Your task to perform on an android device: toggle location history Image 0: 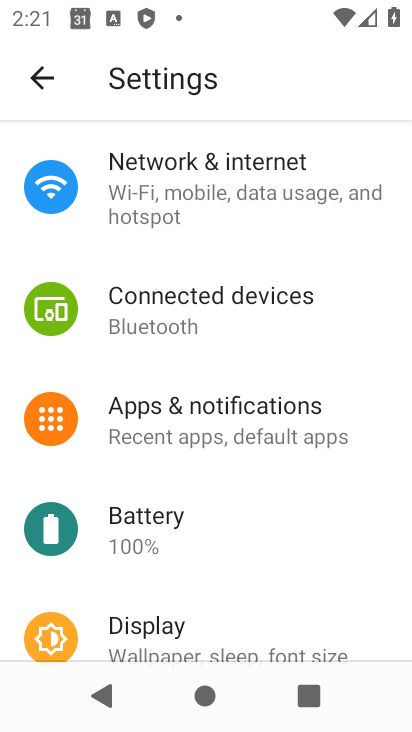
Step 0: drag from (276, 597) to (254, 227)
Your task to perform on an android device: toggle location history Image 1: 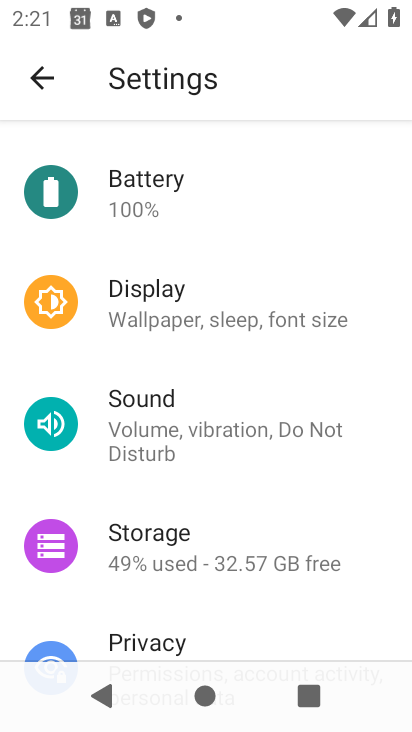
Step 1: drag from (265, 208) to (312, 542)
Your task to perform on an android device: toggle location history Image 2: 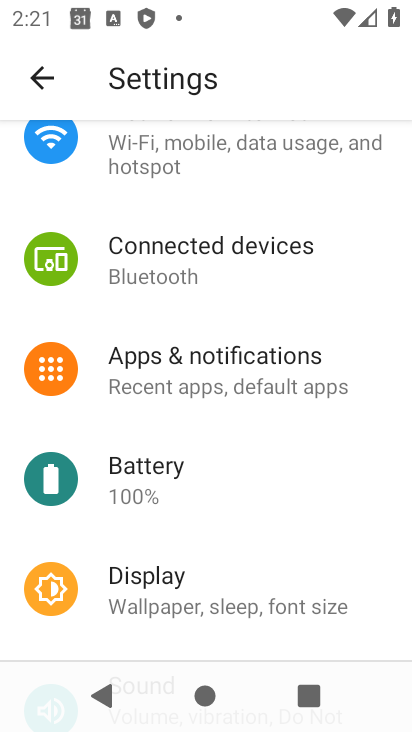
Step 2: drag from (276, 209) to (300, 559)
Your task to perform on an android device: toggle location history Image 3: 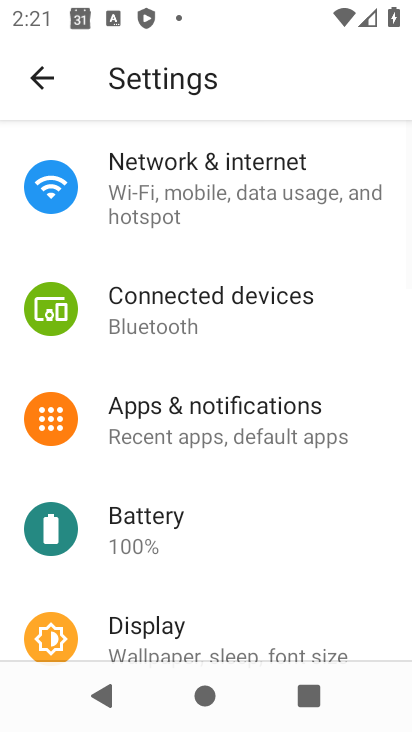
Step 3: drag from (311, 554) to (282, 70)
Your task to perform on an android device: toggle location history Image 4: 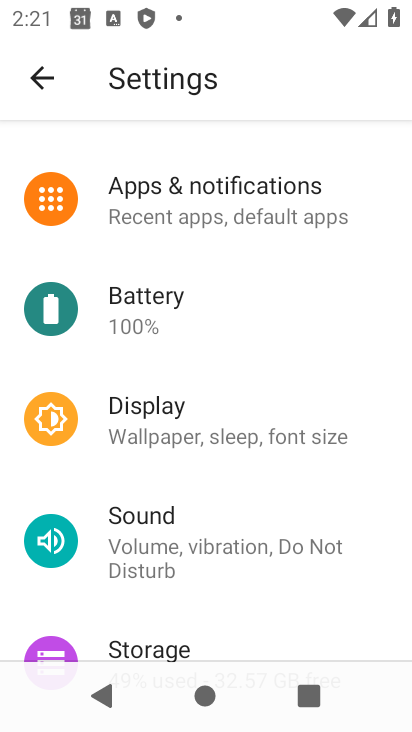
Step 4: drag from (225, 584) to (236, 133)
Your task to perform on an android device: toggle location history Image 5: 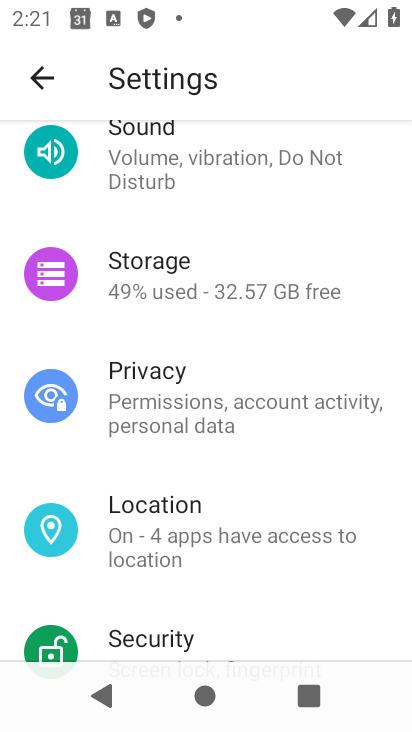
Step 5: click (215, 529)
Your task to perform on an android device: toggle location history Image 6: 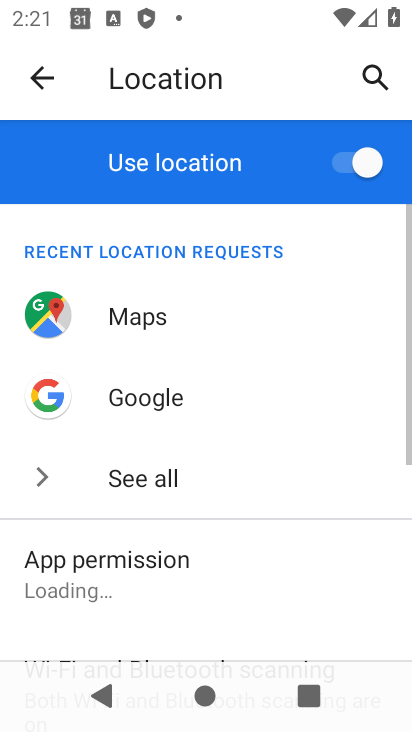
Step 6: drag from (212, 596) to (243, 136)
Your task to perform on an android device: toggle location history Image 7: 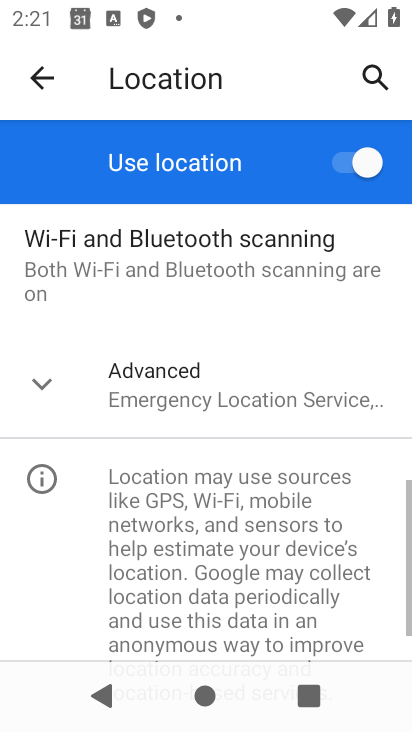
Step 7: click (48, 376)
Your task to perform on an android device: toggle location history Image 8: 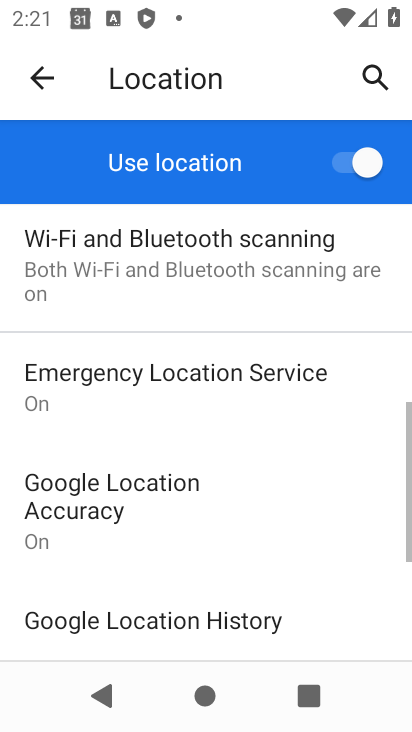
Step 8: drag from (207, 571) to (252, 219)
Your task to perform on an android device: toggle location history Image 9: 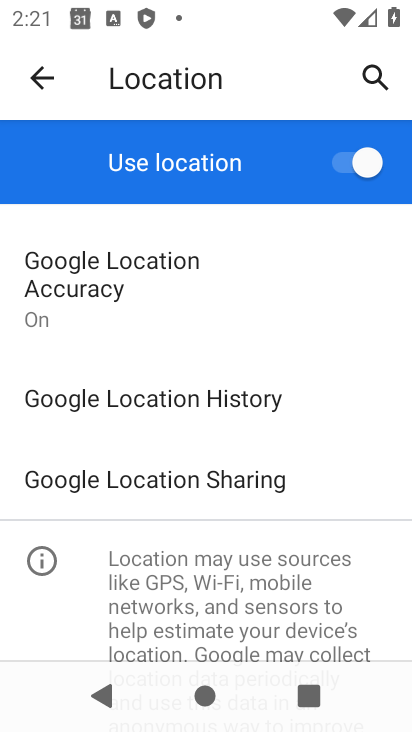
Step 9: click (265, 392)
Your task to perform on an android device: toggle location history Image 10: 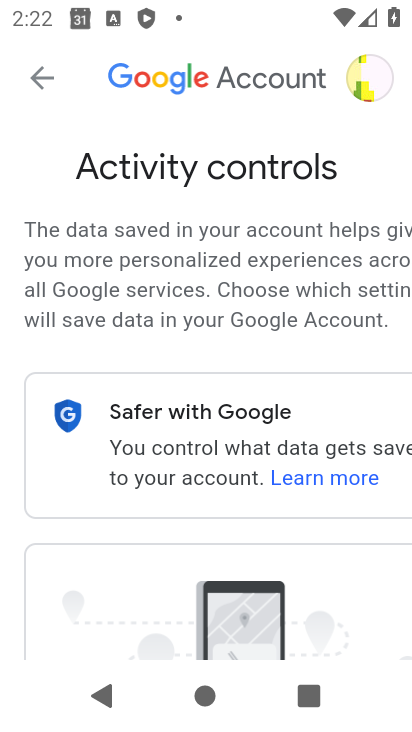
Step 10: drag from (268, 496) to (262, 77)
Your task to perform on an android device: toggle location history Image 11: 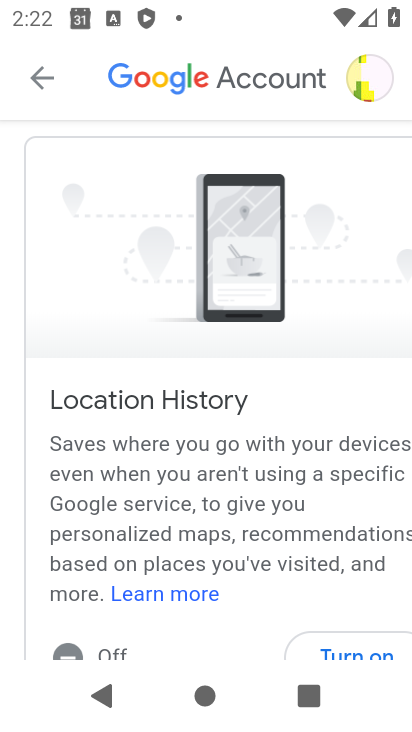
Step 11: drag from (248, 511) to (203, 134)
Your task to perform on an android device: toggle location history Image 12: 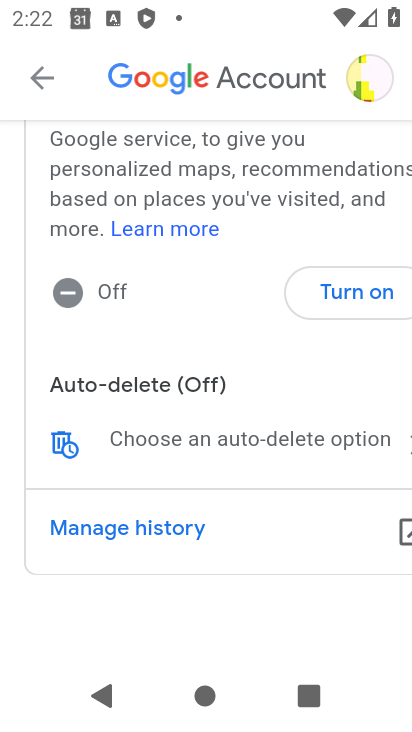
Step 12: click (330, 282)
Your task to perform on an android device: toggle location history Image 13: 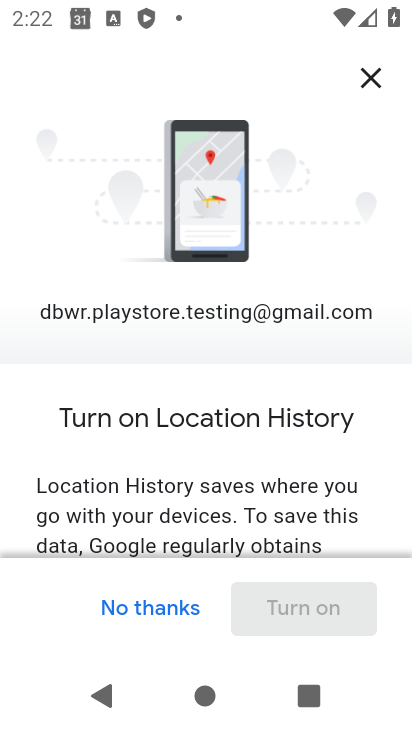
Step 13: click (190, 610)
Your task to perform on an android device: toggle location history Image 14: 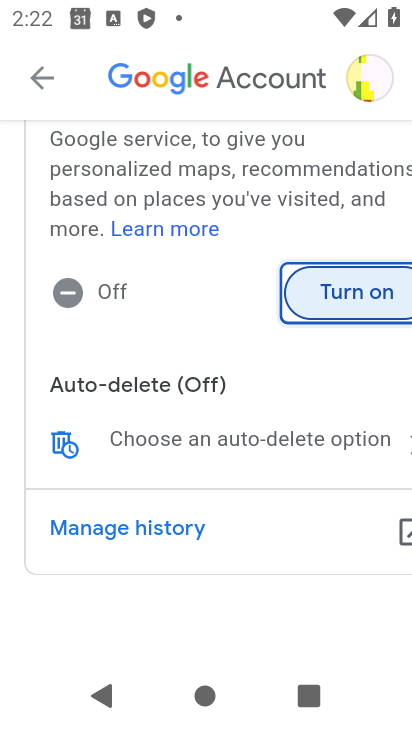
Step 14: click (362, 287)
Your task to perform on an android device: toggle location history Image 15: 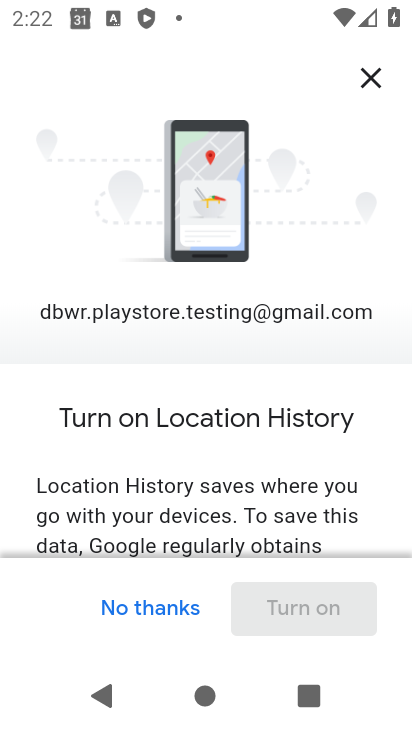
Step 15: drag from (318, 457) to (275, 89)
Your task to perform on an android device: toggle location history Image 16: 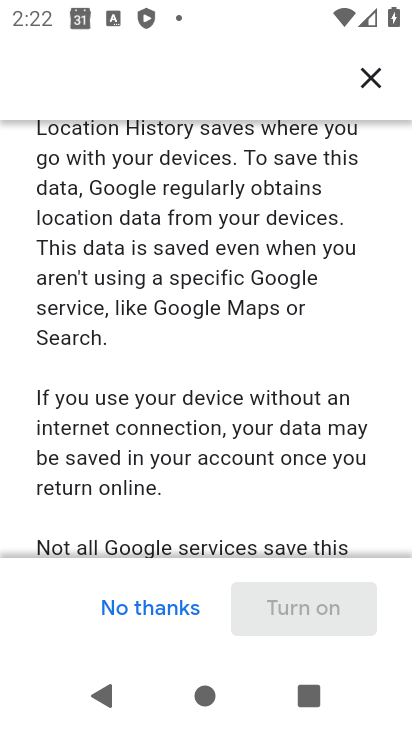
Step 16: drag from (276, 460) to (261, 156)
Your task to perform on an android device: toggle location history Image 17: 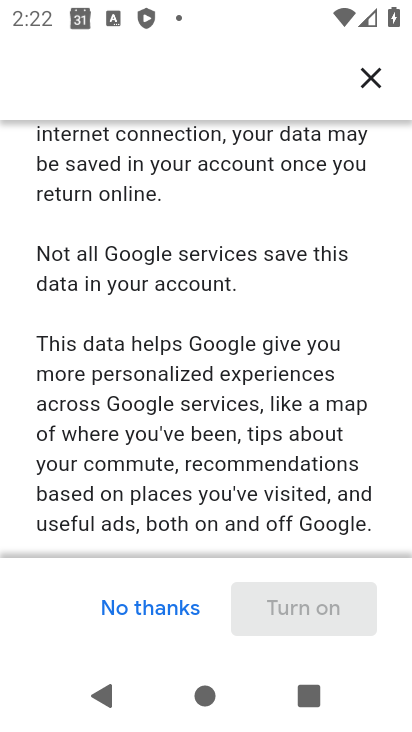
Step 17: drag from (268, 448) to (265, 143)
Your task to perform on an android device: toggle location history Image 18: 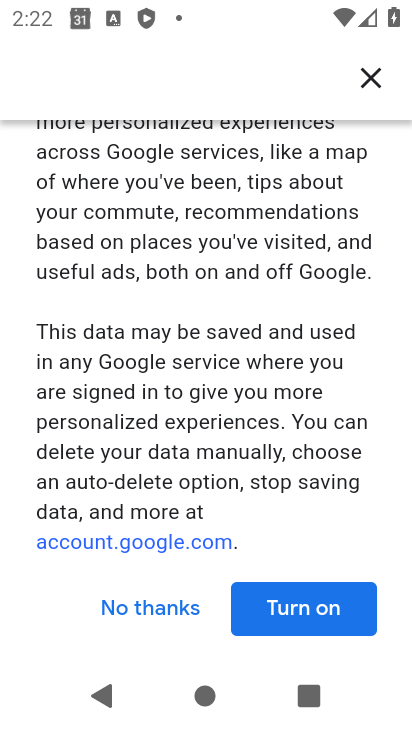
Step 18: click (323, 602)
Your task to perform on an android device: toggle location history Image 19: 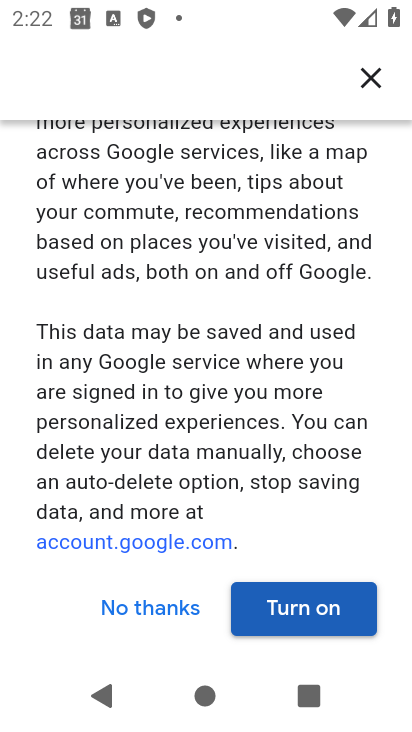
Step 19: click (315, 601)
Your task to perform on an android device: toggle location history Image 20: 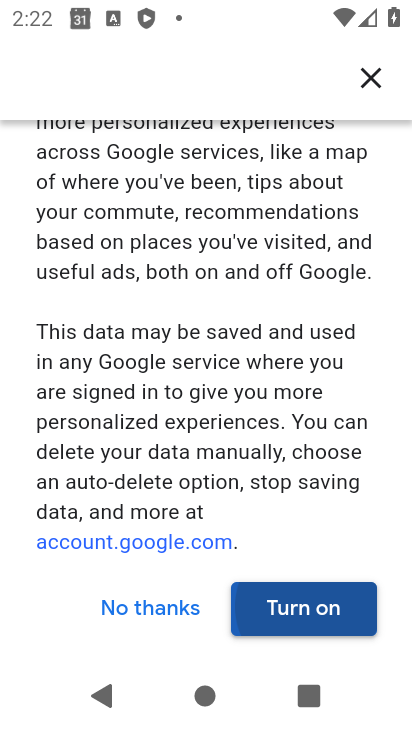
Step 20: click (324, 606)
Your task to perform on an android device: toggle location history Image 21: 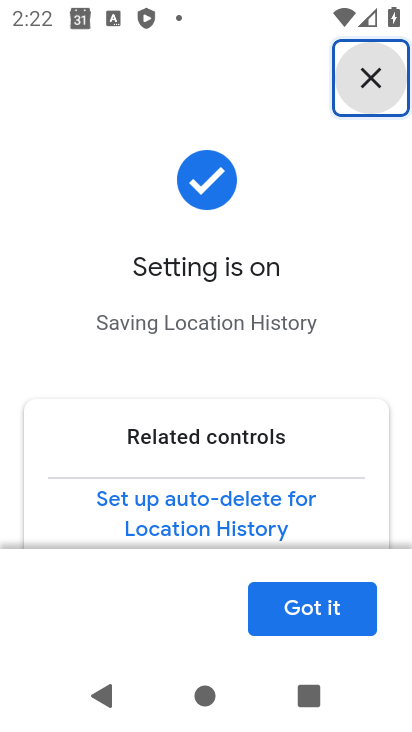
Step 21: click (326, 604)
Your task to perform on an android device: toggle location history Image 22: 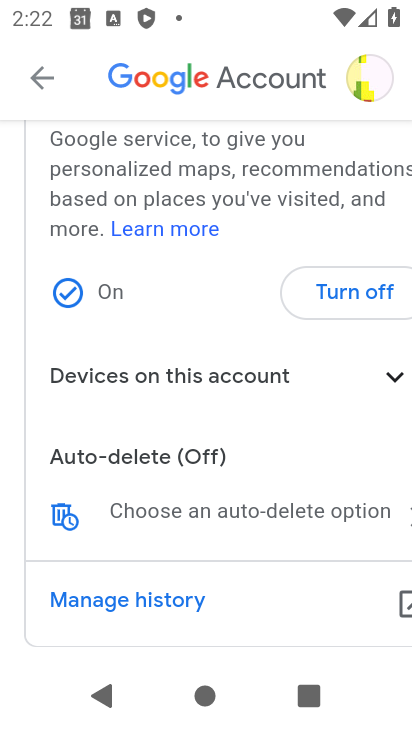
Step 22: click (350, 616)
Your task to perform on an android device: toggle location history Image 23: 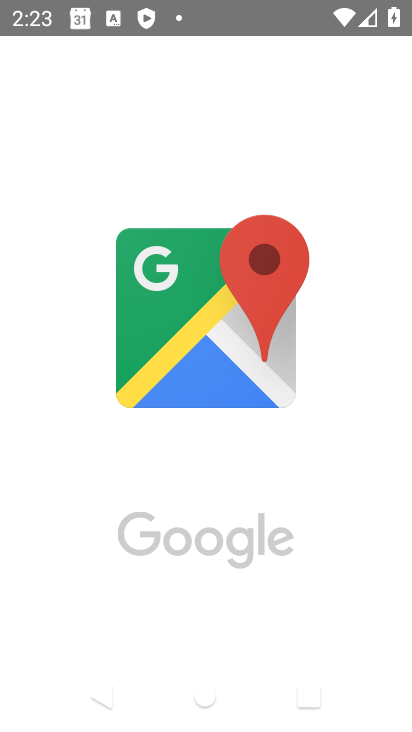
Step 23: task complete